Your task to perform on an android device: Open Google Maps and go to "Timeline" Image 0: 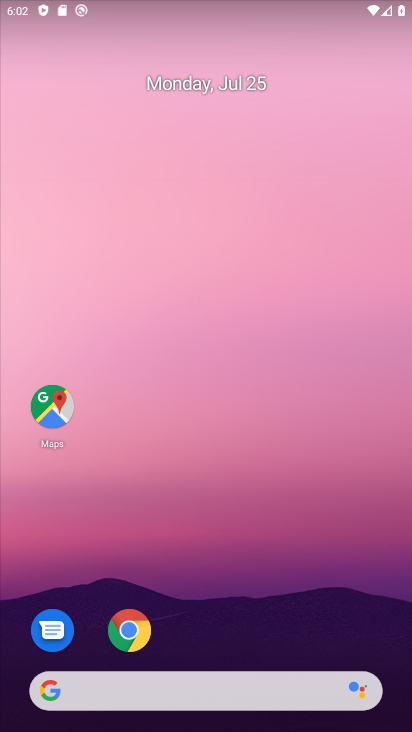
Step 0: click (50, 408)
Your task to perform on an android device: Open Google Maps and go to "Timeline" Image 1: 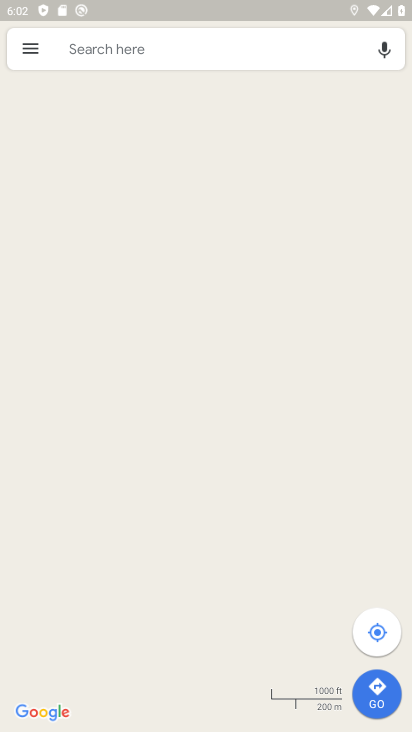
Step 1: click (29, 49)
Your task to perform on an android device: Open Google Maps and go to "Timeline" Image 2: 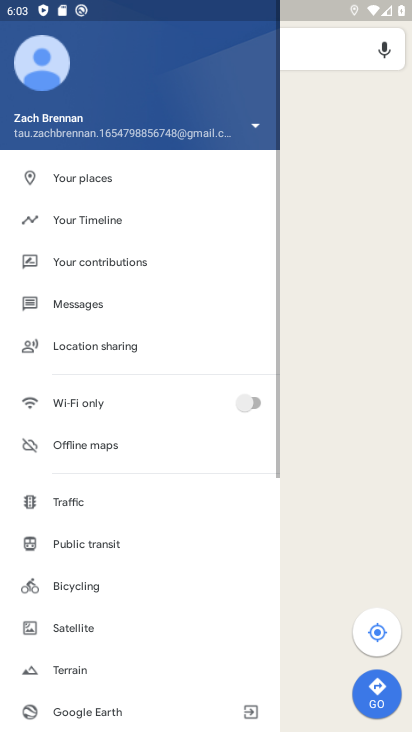
Step 2: drag from (69, 375) to (131, 109)
Your task to perform on an android device: Open Google Maps and go to "Timeline" Image 3: 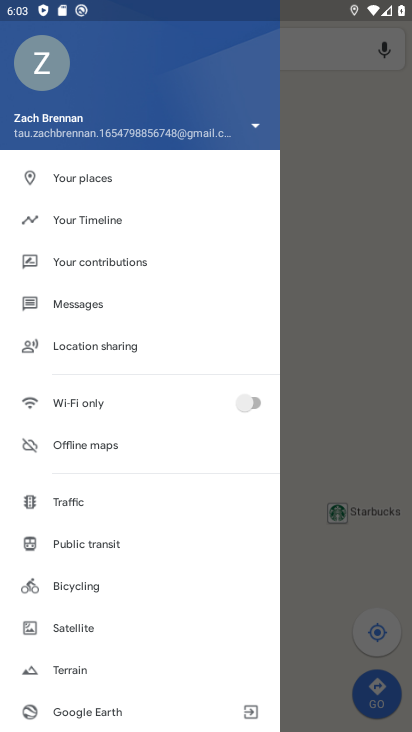
Step 3: drag from (70, 586) to (106, 225)
Your task to perform on an android device: Open Google Maps and go to "Timeline" Image 4: 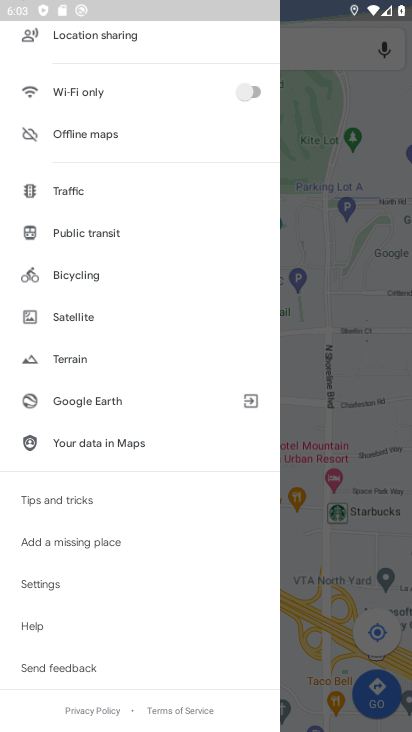
Step 4: click (56, 584)
Your task to perform on an android device: Open Google Maps and go to "Timeline" Image 5: 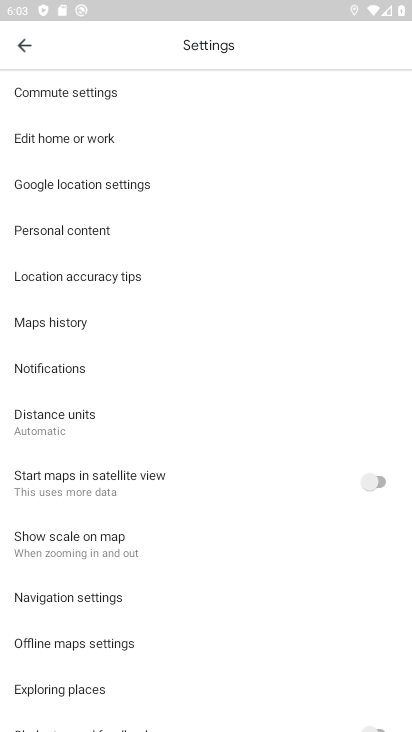
Step 5: task complete